Your task to perform on an android device: delete a single message in the gmail app Image 0: 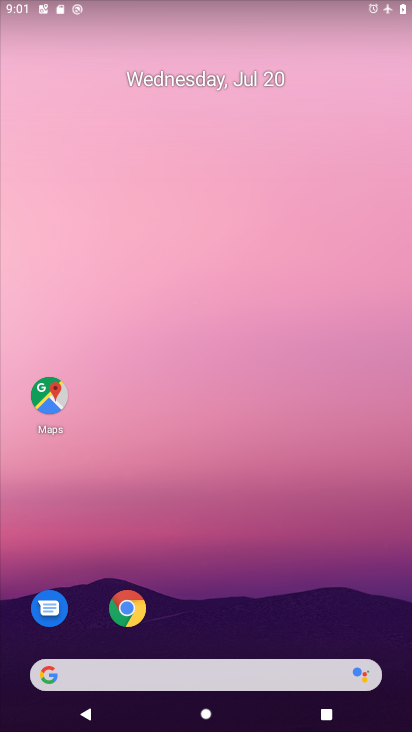
Step 0: drag from (209, 636) to (280, 209)
Your task to perform on an android device: delete a single message in the gmail app Image 1: 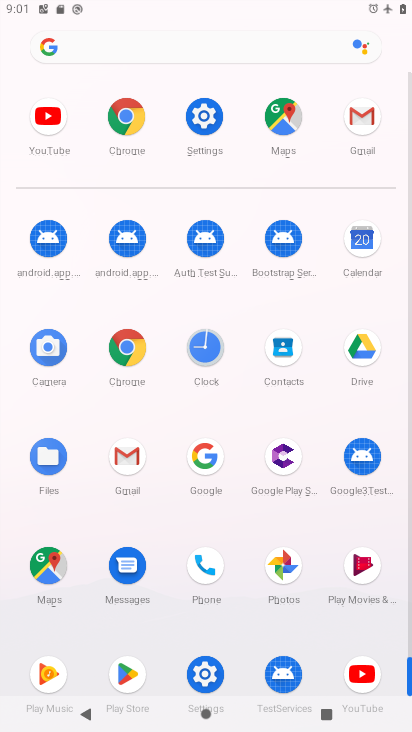
Step 1: click (362, 113)
Your task to perform on an android device: delete a single message in the gmail app Image 2: 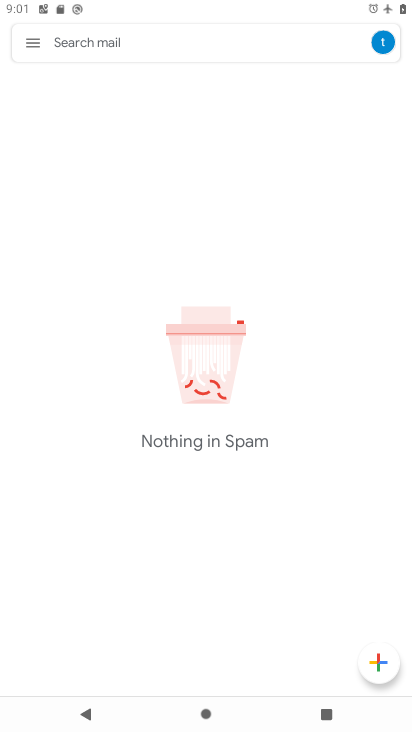
Step 2: click (33, 36)
Your task to perform on an android device: delete a single message in the gmail app Image 3: 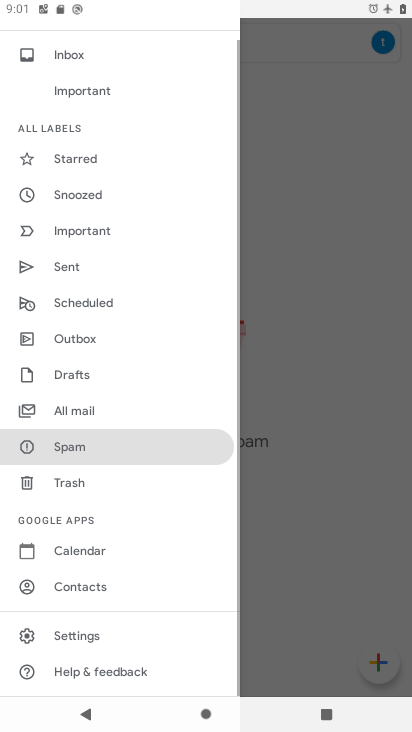
Step 3: click (100, 403)
Your task to perform on an android device: delete a single message in the gmail app Image 4: 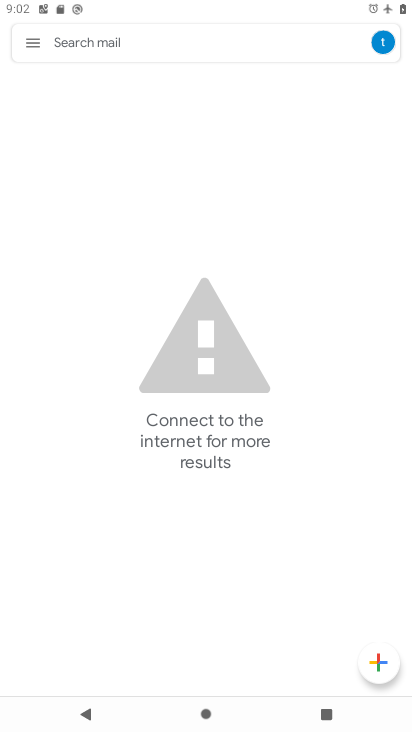
Step 4: task complete